Your task to perform on an android device: Search for alienware area 51 on amazon.com, select the first entry, and add it to the cart. Image 0: 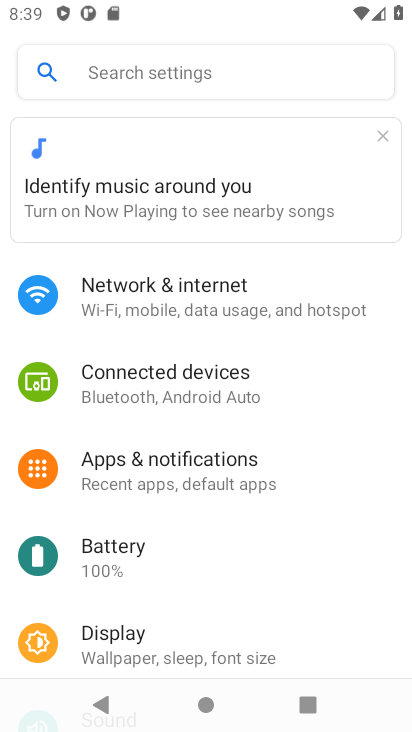
Step 0: press home button
Your task to perform on an android device: Search for alienware area 51 on amazon.com, select the first entry, and add it to the cart. Image 1: 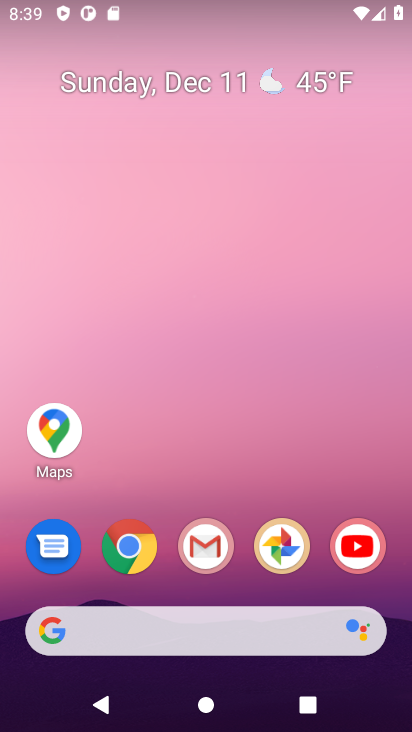
Step 1: click (127, 552)
Your task to perform on an android device: Search for alienware area 51 on amazon.com, select the first entry, and add it to the cart. Image 2: 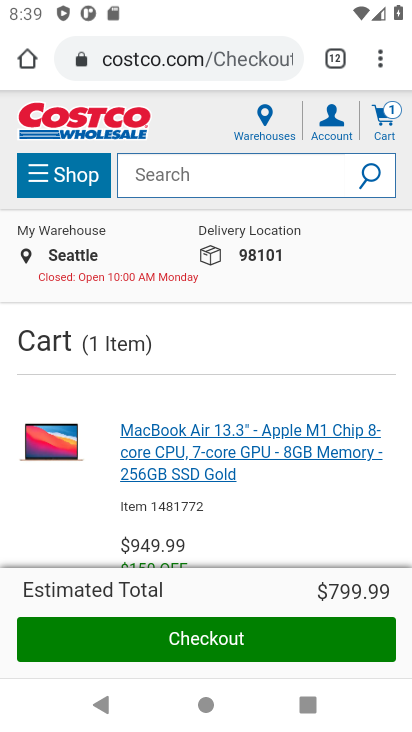
Step 2: click (156, 64)
Your task to perform on an android device: Search for alienware area 51 on amazon.com, select the first entry, and add it to the cart. Image 3: 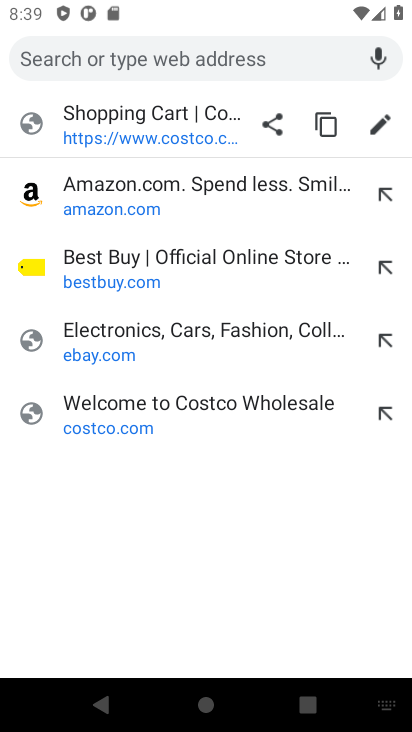
Step 3: click (104, 204)
Your task to perform on an android device: Search for alienware area 51 on amazon.com, select the first entry, and add it to the cart. Image 4: 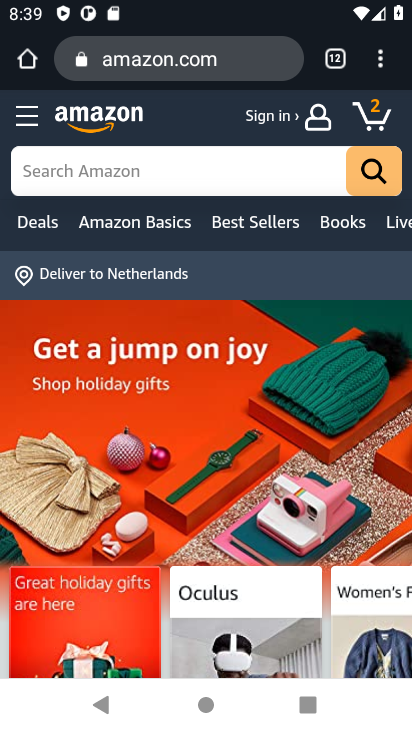
Step 4: click (97, 166)
Your task to perform on an android device: Search for alienware area 51 on amazon.com, select the first entry, and add it to the cart. Image 5: 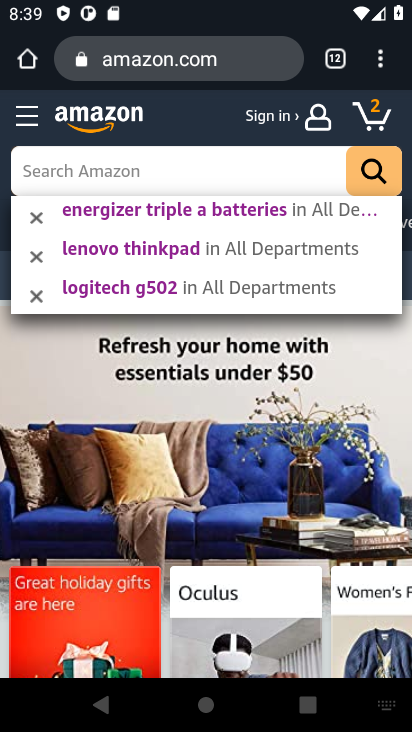
Step 5: type "alienware area 51"
Your task to perform on an android device: Search for alienware area 51 on amazon.com, select the first entry, and add it to the cart. Image 6: 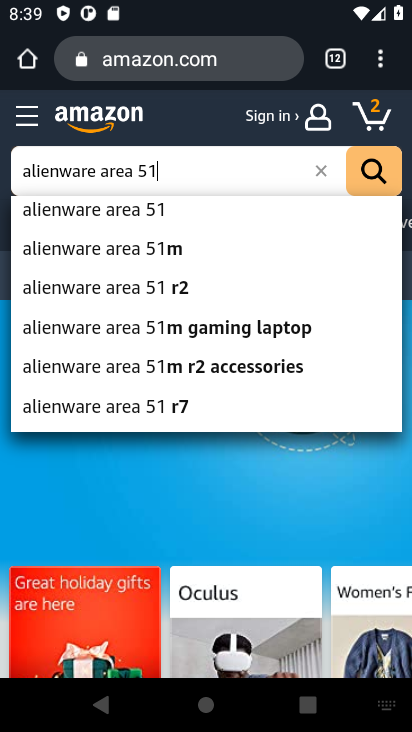
Step 6: click (124, 215)
Your task to perform on an android device: Search for alienware area 51 on amazon.com, select the first entry, and add it to the cart. Image 7: 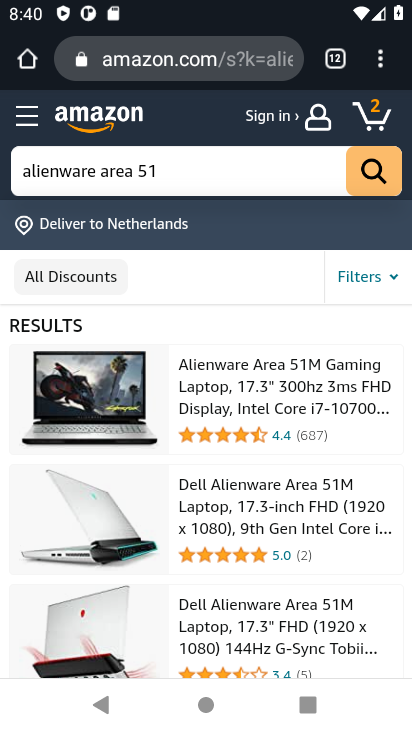
Step 7: click (244, 400)
Your task to perform on an android device: Search for alienware area 51 on amazon.com, select the first entry, and add it to the cart. Image 8: 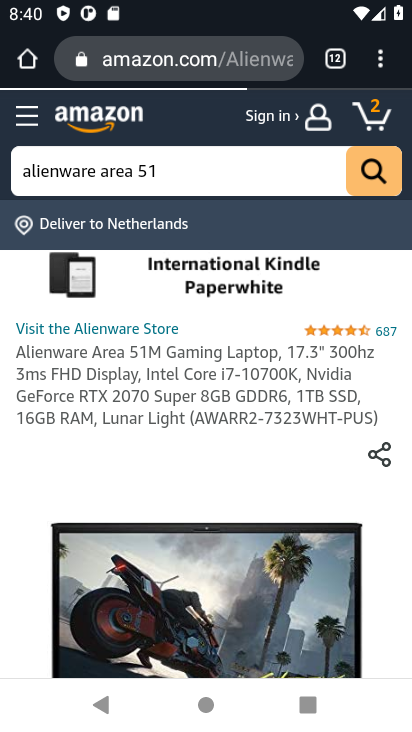
Step 8: task complete